Your task to perform on an android device: Go to network settings Image 0: 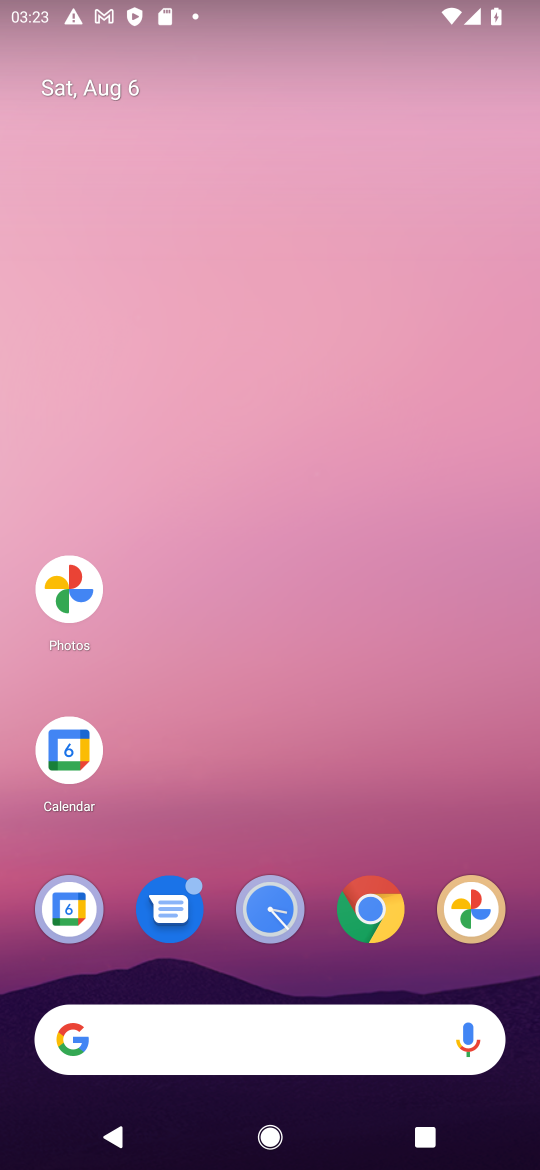
Step 0: drag from (250, 828) to (407, 52)
Your task to perform on an android device: Go to network settings Image 1: 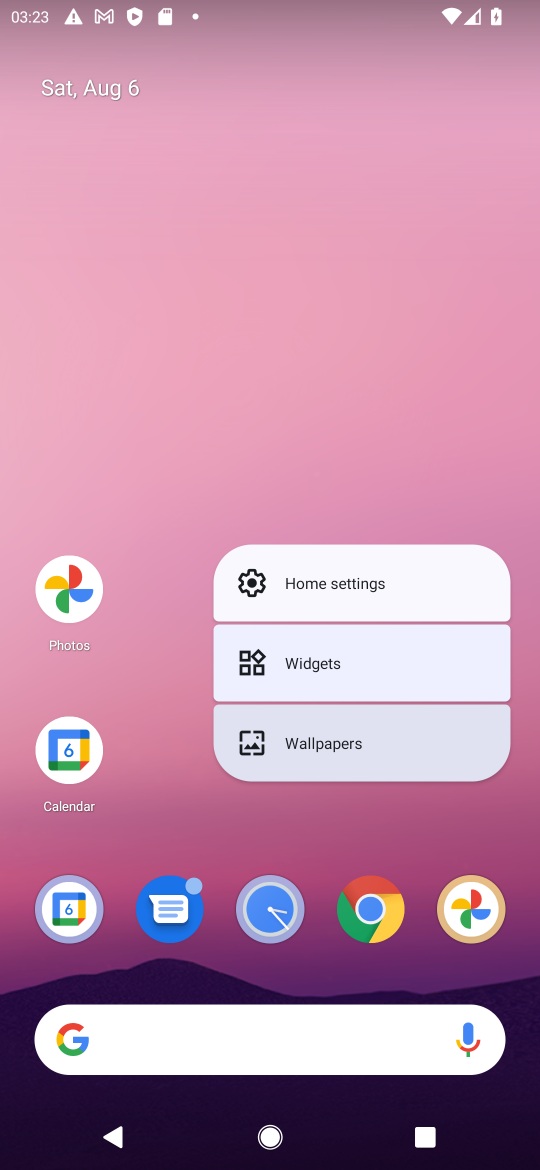
Step 1: click (169, 496)
Your task to perform on an android device: Go to network settings Image 2: 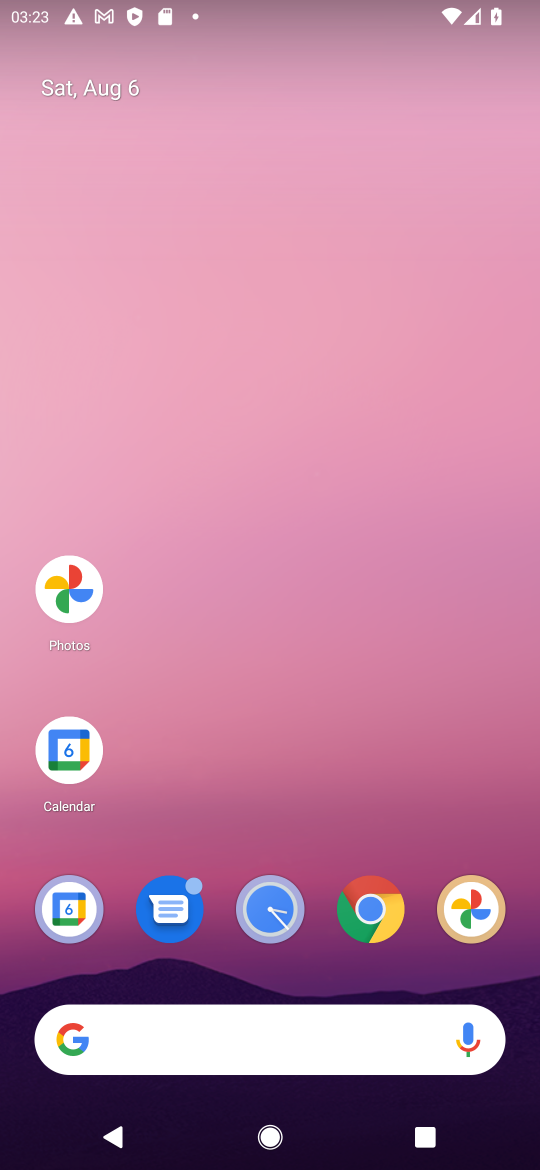
Step 2: drag from (288, 976) to (282, 35)
Your task to perform on an android device: Go to network settings Image 3: 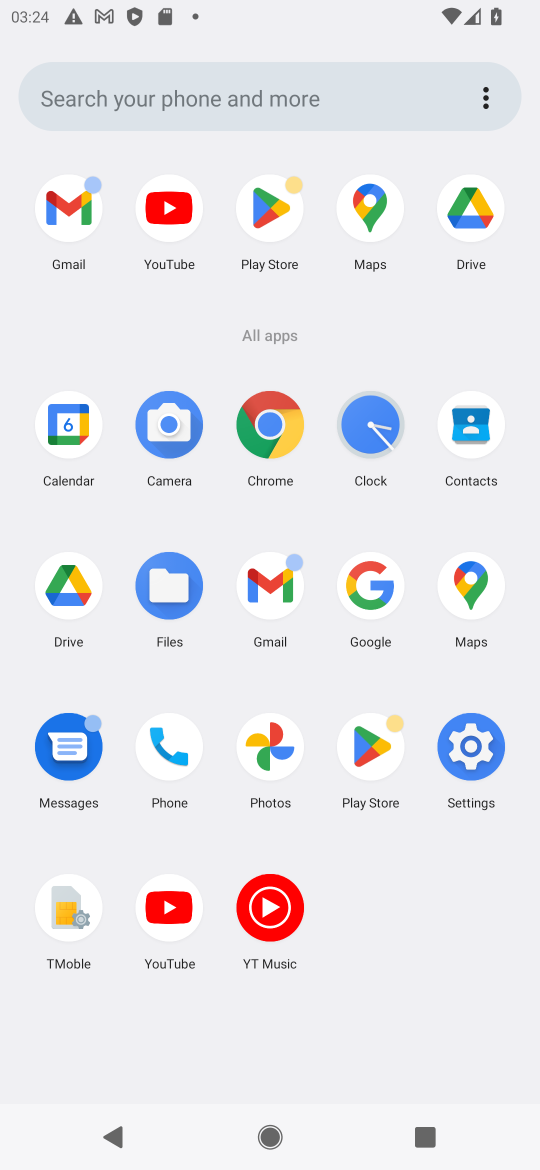
Step 3: click (470, 745)
Your task to perform on an android device: Go to network settings Image 4: 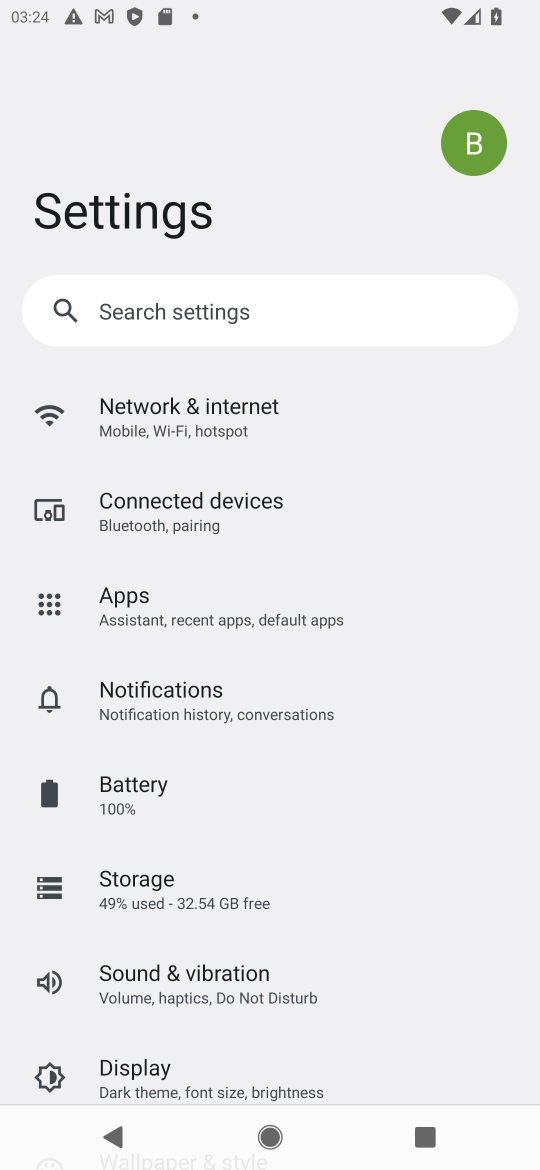
Step 4: click (157, 396)
Your task to perform on an android device: Go to network settings Image 5: 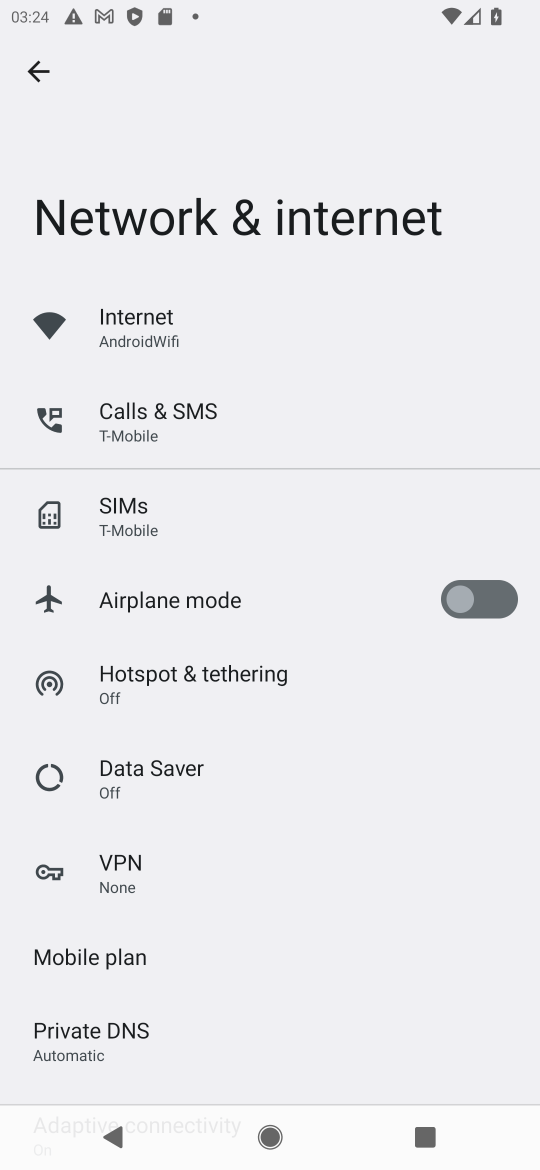
Step 5: task complete